Your task to perform on an android device: open app "Google Drive" Image 0: 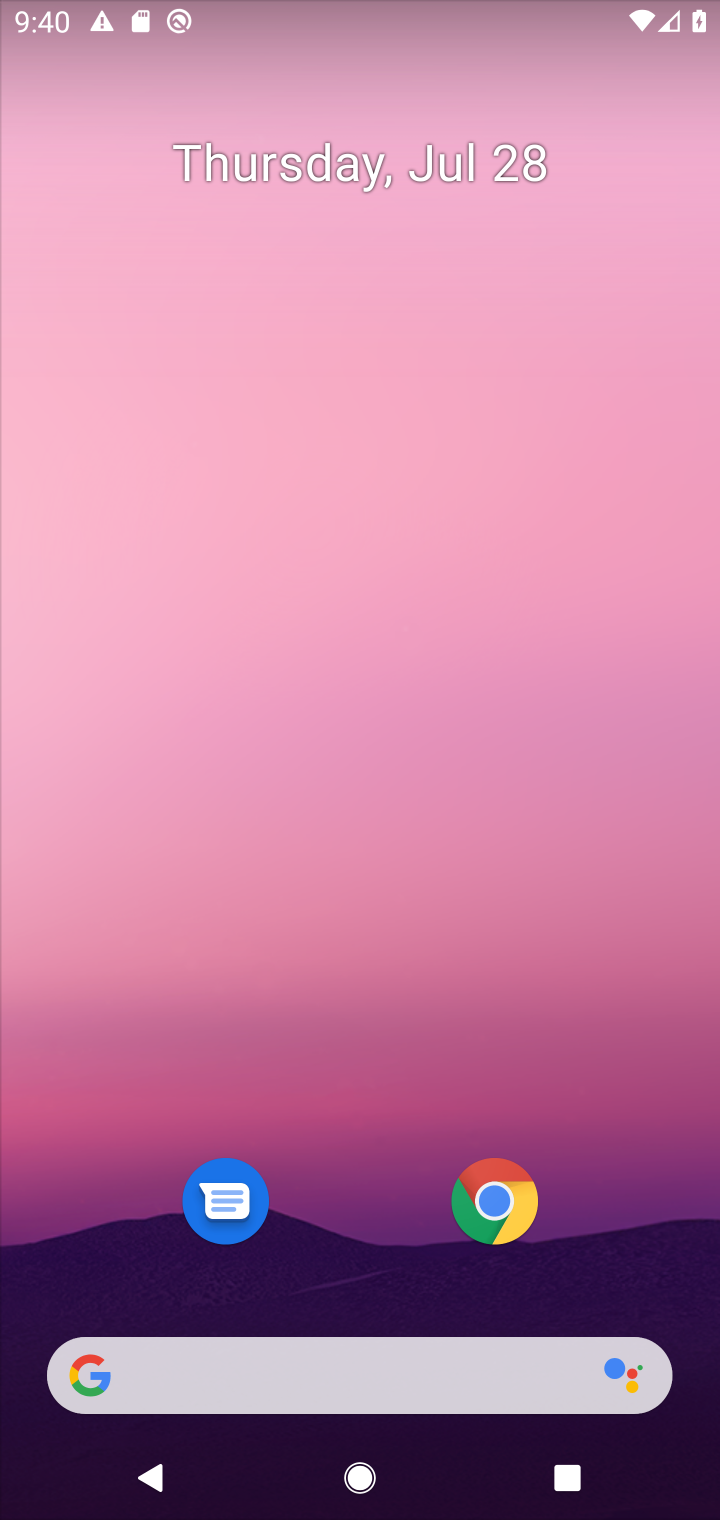
Step 0: drag from (327, 968) to (339, 9)
Your task to perform on an android device: open app "Google Drive" Image 1: 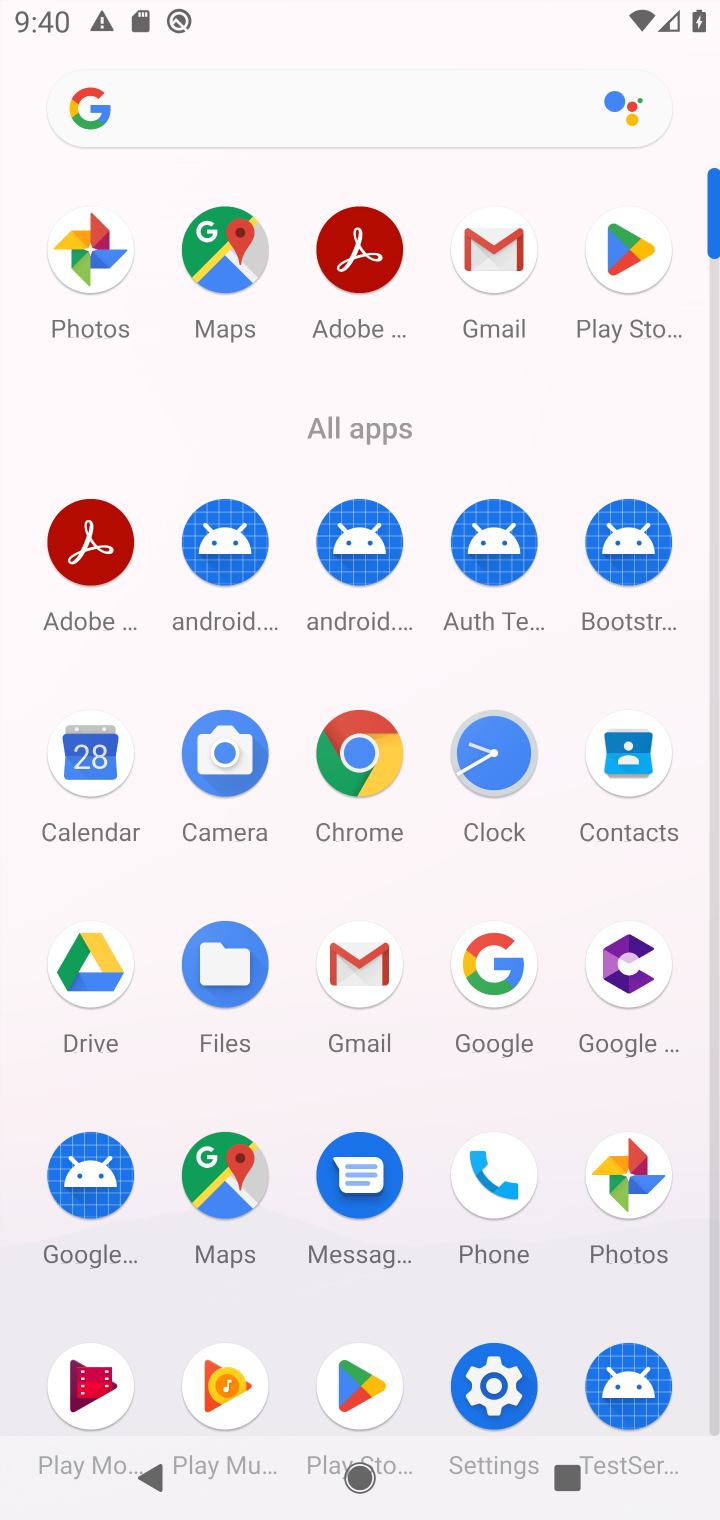
Step 1: click (639, 293)
Your task to perform on an android device: open app "Google Drive" Image 2: 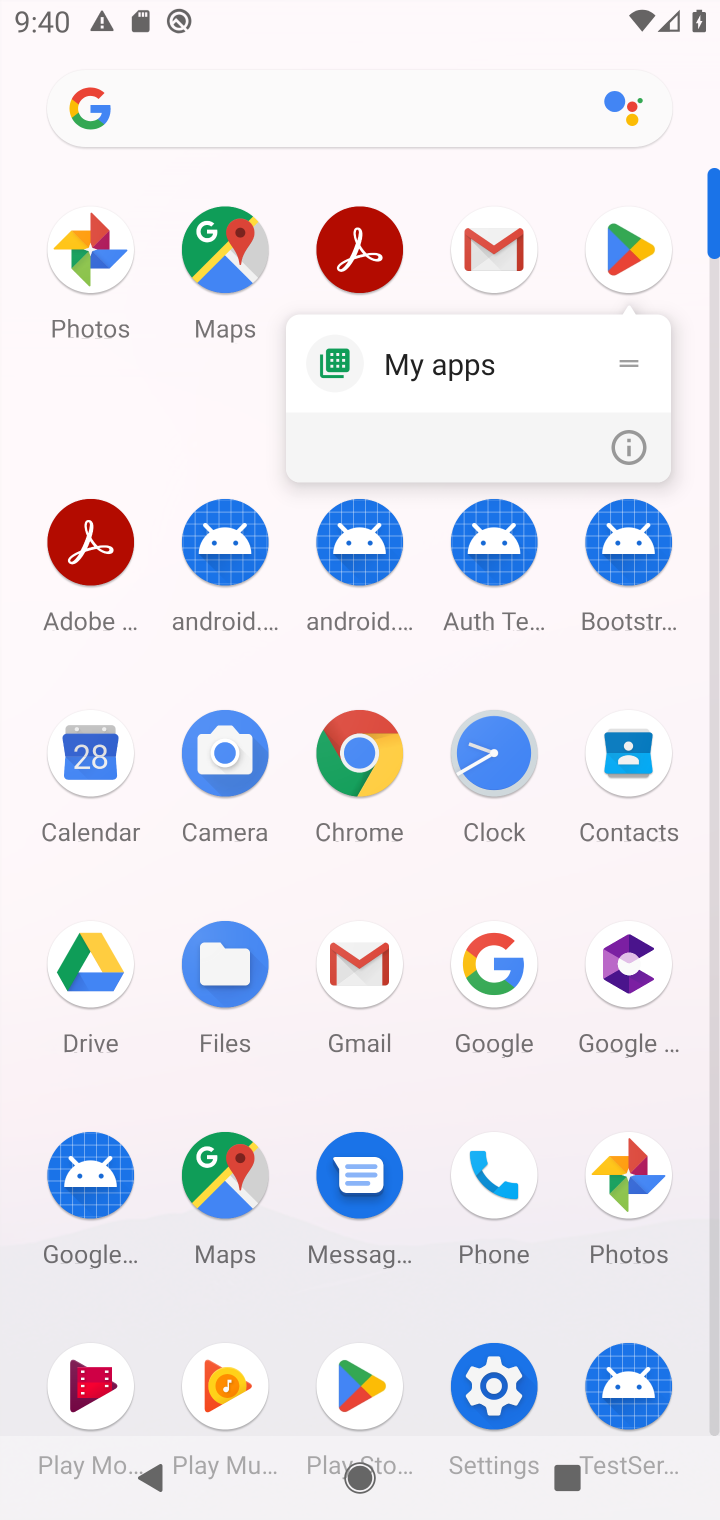
Step 2: click (626, 257)
Your task to perform on an android device: open app "Google Drive" Image 3: 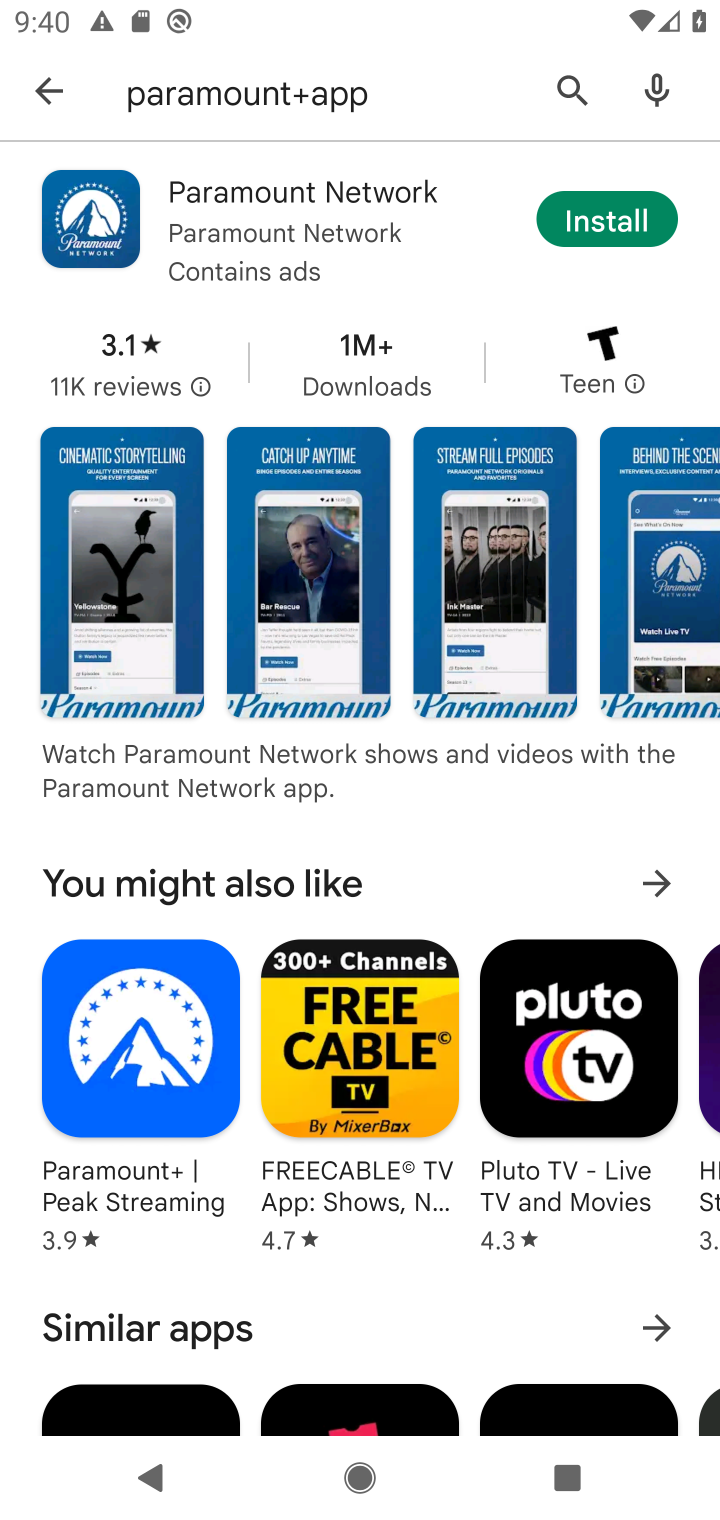
Step 3: click (298, 88)
Your task to perform on an android device: open app "Google Drive" Image 4: 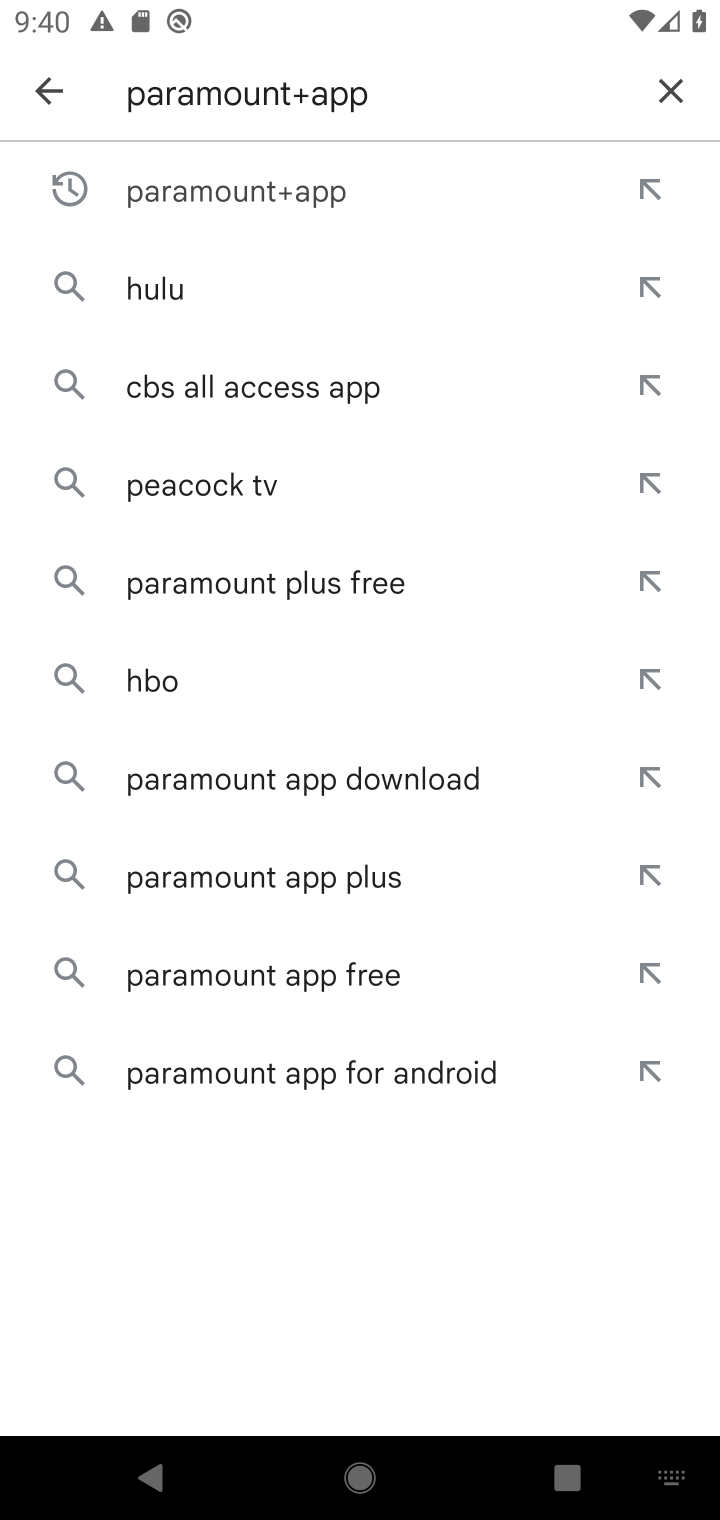
Step 4: click (657, 91)
Your task to perform on an android device: open app "Google Drive" Image 5: 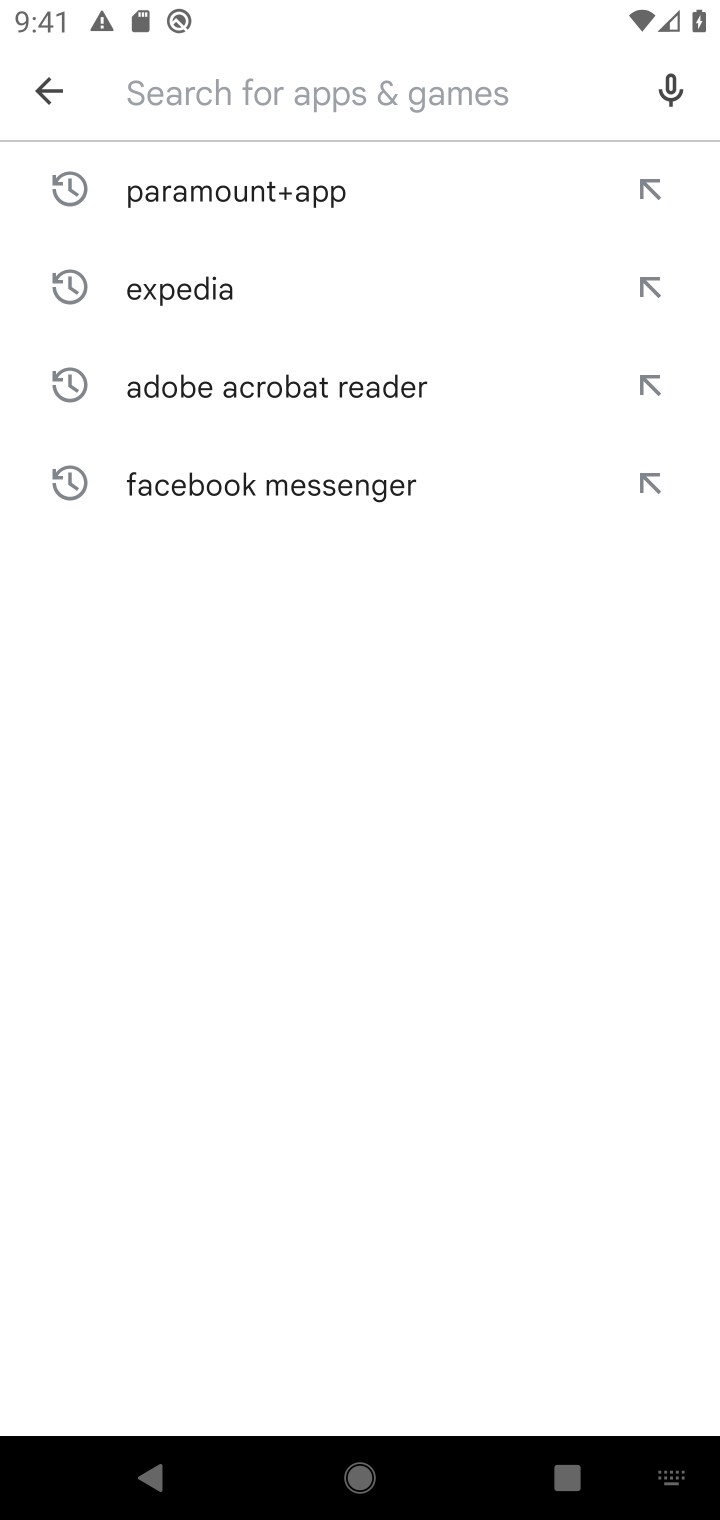
Step 5: type "Google Drive"
Your task to perform on an android device: open app "Google Drive" Image 6: 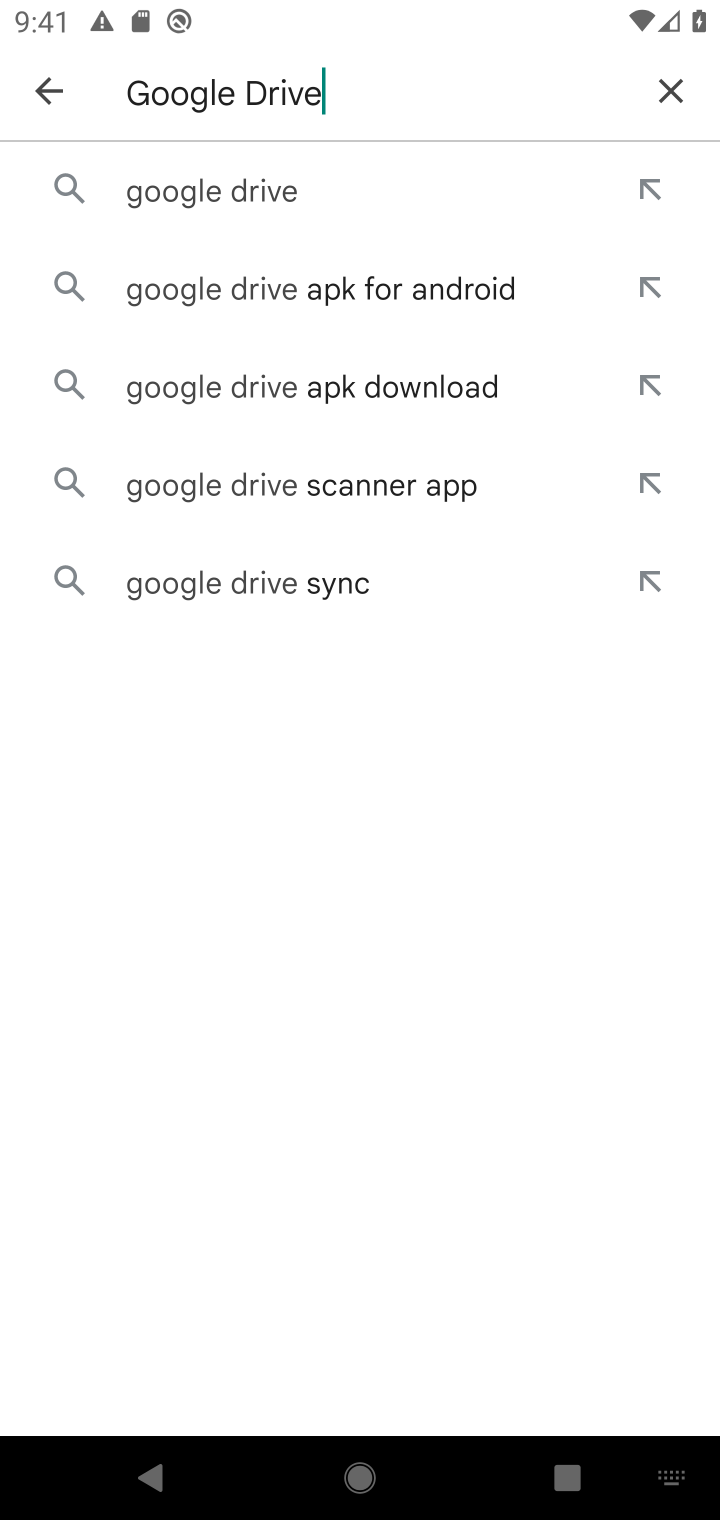
Step 6: click (257, 200)
Your task to perform on an android device: open app "Google Drive" Image 7: 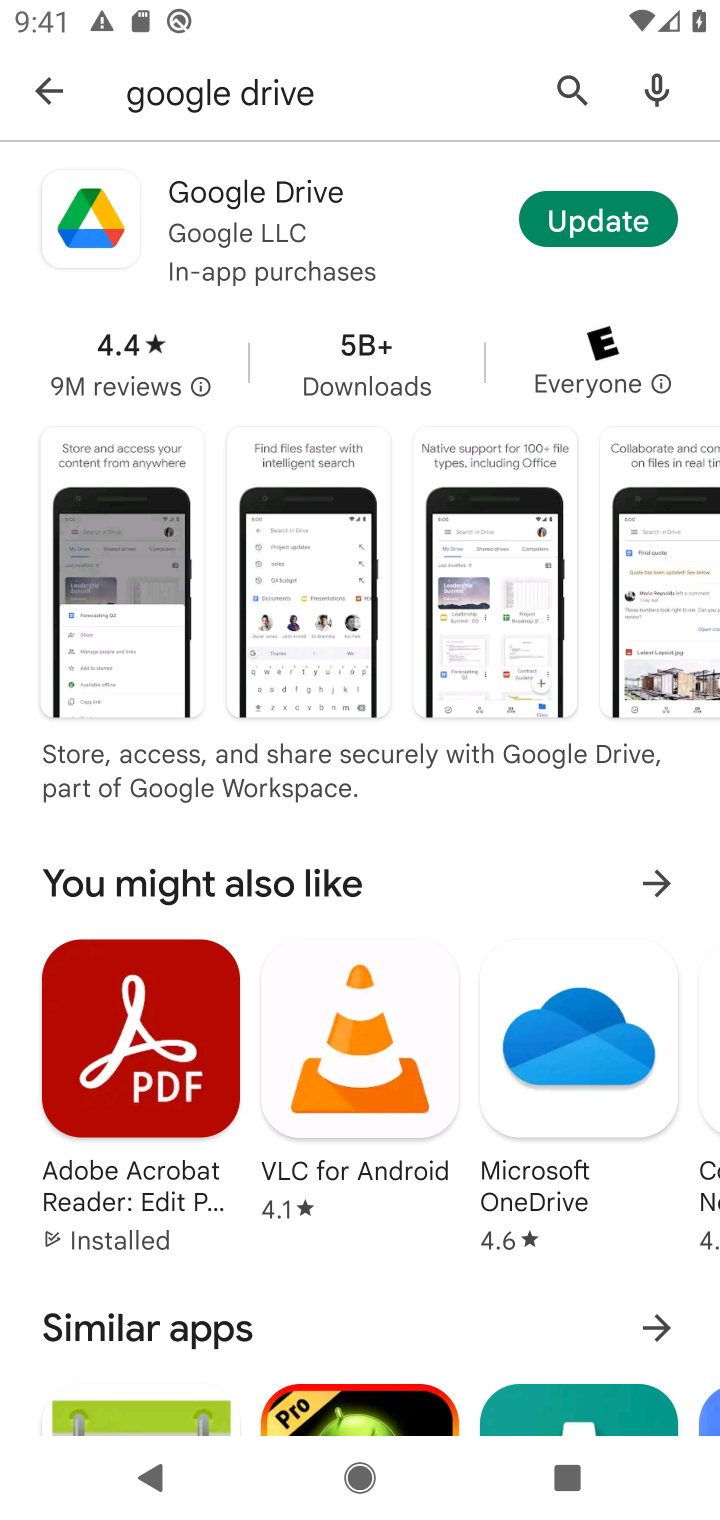
Step 7: click (356, 218)
Your task to perform on an android device: open app "Google Drive" Image 8: 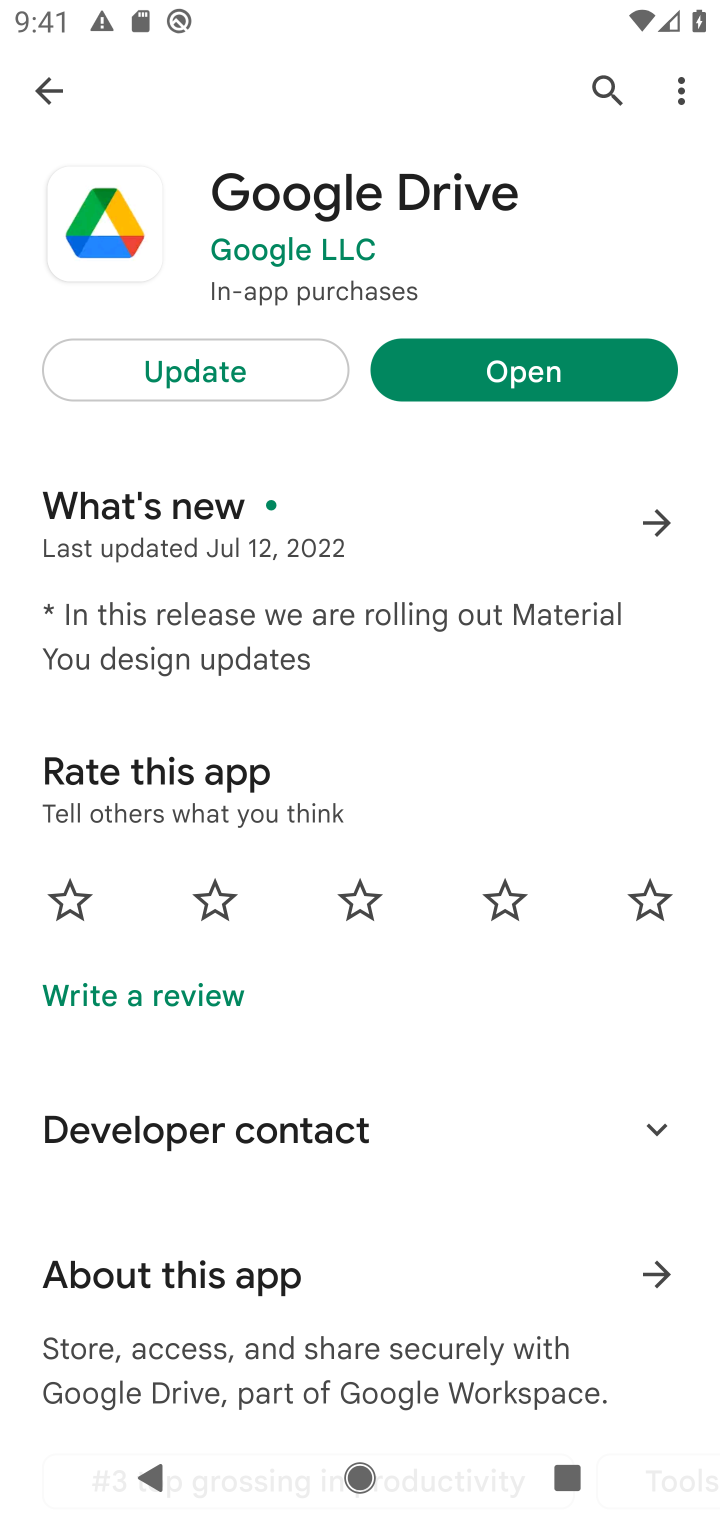
Step 8: click (572, 389)
Your task to perform on an android device: open app "Google Drive" Image 9: 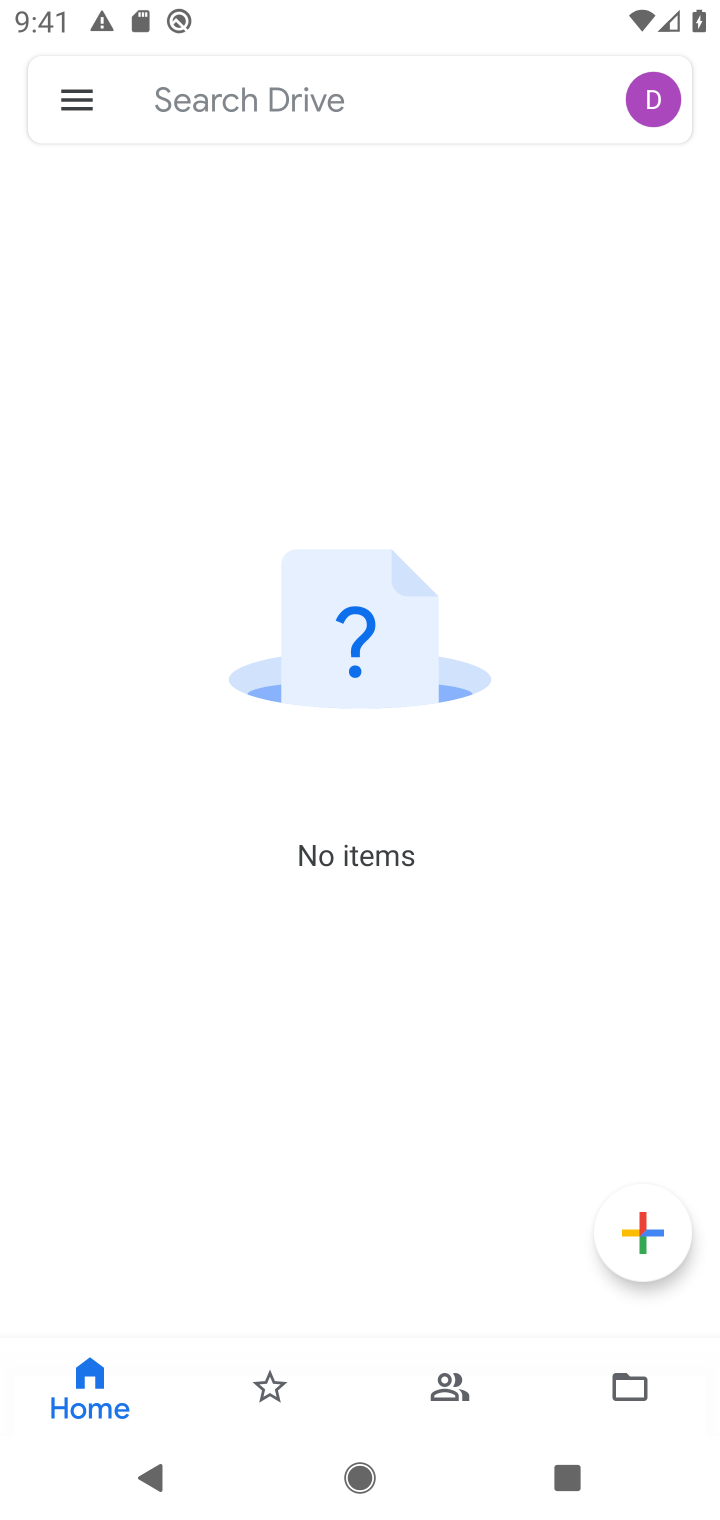
Step 9: task complete